Your task to perform on an android device: set default search engine in the chrome app Image 0: 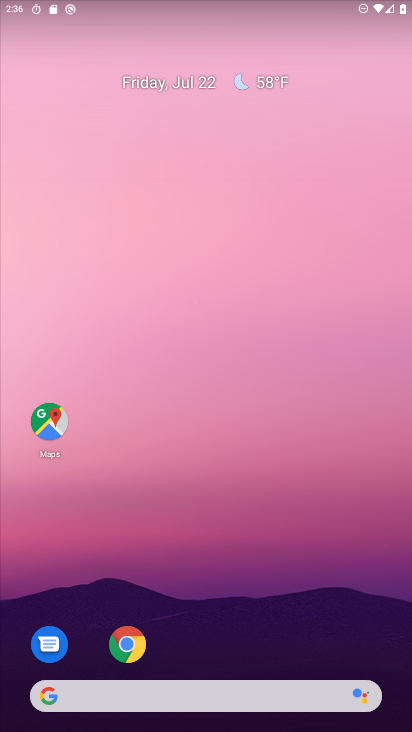
Step 0: click (127, 657)
Your task to perform on an android device: set default search engine in the chrome app Image 1: 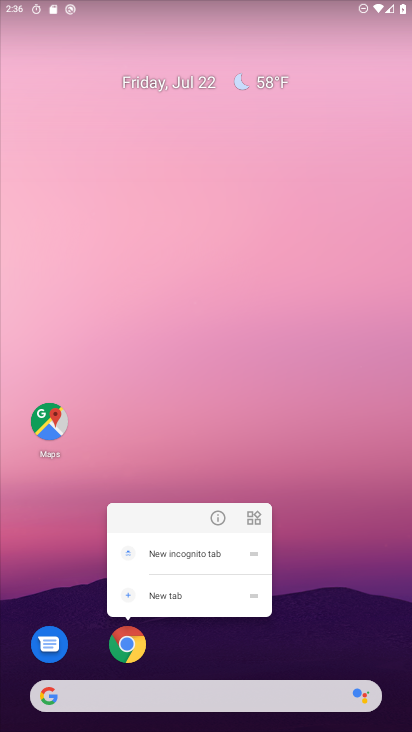
Step 1: click (136, 639)
Your task to perform on an android device: set default search engine in the chrome app Image 2: 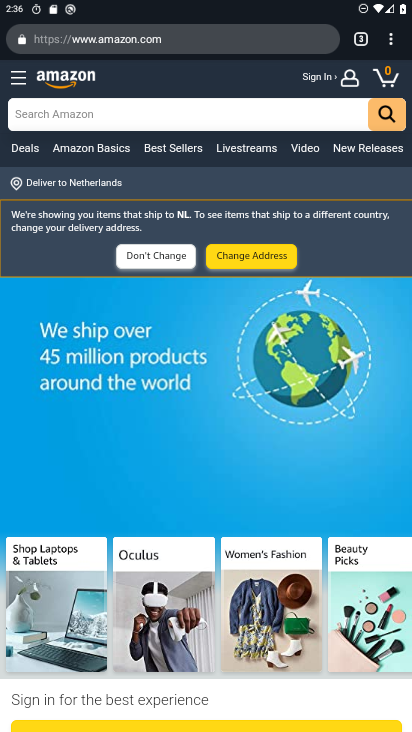
Step 2: click (393, 43)
Your task to perform on an android device: set default search engine in the chrome app Image 3: 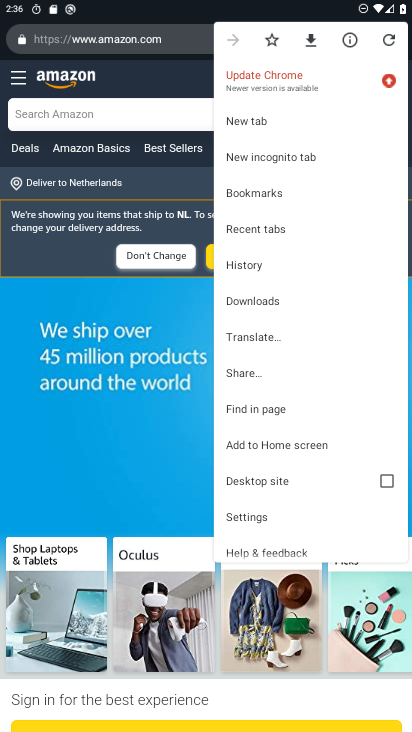
Step 3: click (260, 510)
Your task to perform on an android device: set default search engine in the chrome app Image 4: 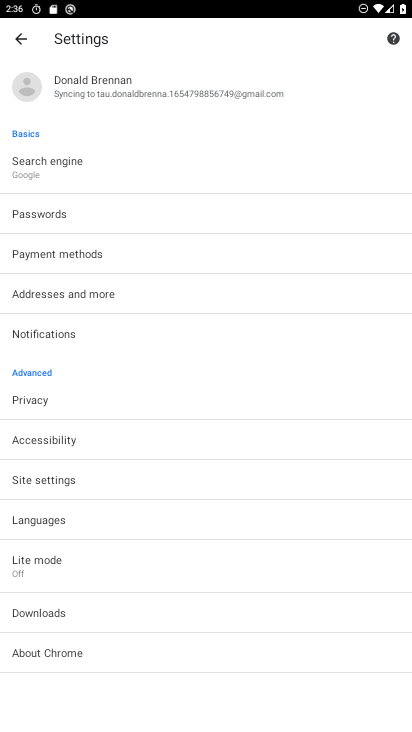
Step 4: click (68, 167)
Your task to perform on an android device: set default search engine in the chrome app Image 5: 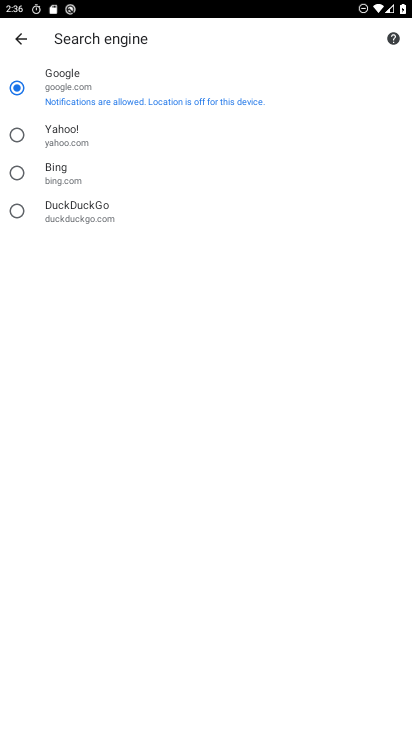
Step 5: task complete